Your task to perform on an android device: turn on javascript in the chrome app Image 0: 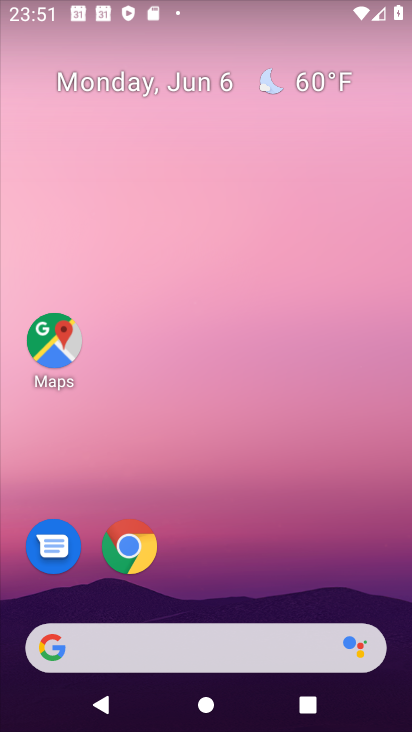
Step 0: drag from (284, 646) to (231, 110)
Your task to perform on an android device: turn on javascript in the chrome app Image 1: 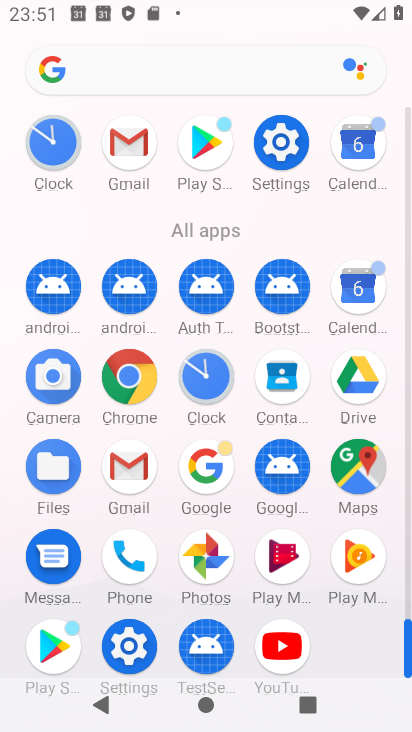
Step 1: click (125, 383)
Your task to perform on an android device: turn on javascript in the chrome app Image 2: 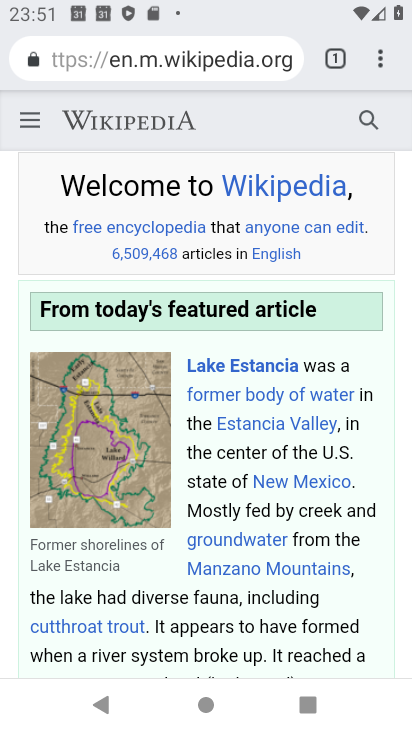
Step 2: click (384, 59)
Your task to perform on an android device: turn on javascript in the chrome app Image 3: 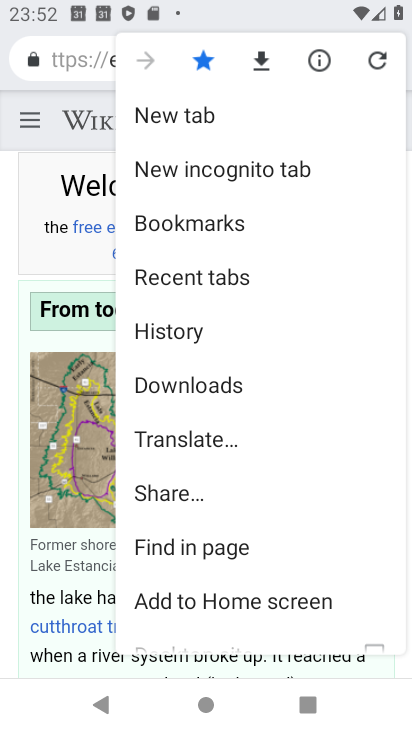
Step 3: drag from (198, 567) to (134, 24)
Your task to perform on an android device: turn on javascript in the chrome app Image 4: 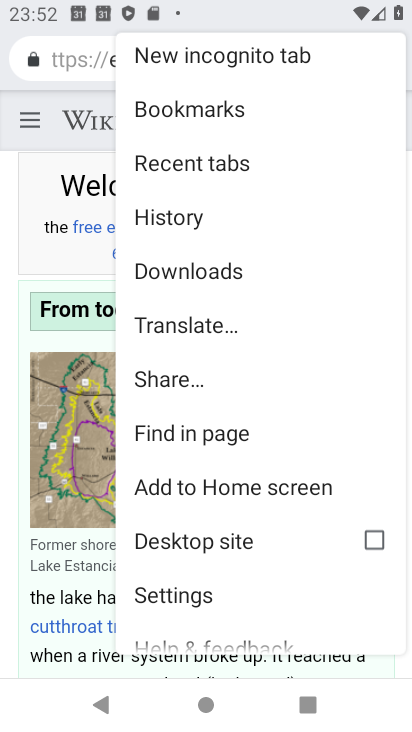
Step 4: click (161, 585)
Your task to perform on an android device: turn on javascript in the chrome app Image 5: 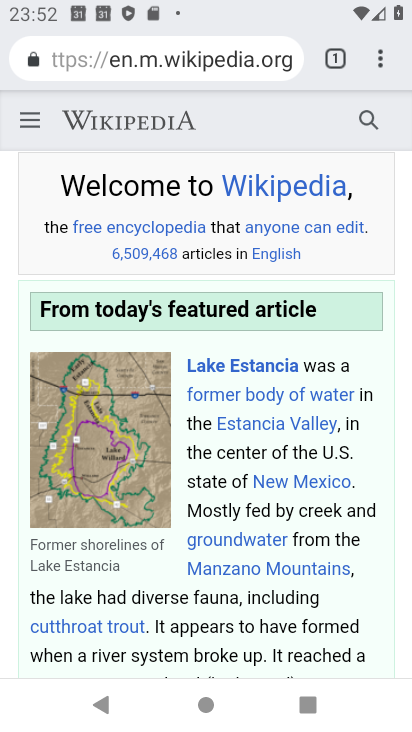
Step 5: click (162, 585)
Your task to perform on an android device: turn on javascript in the chrome app Image 6: 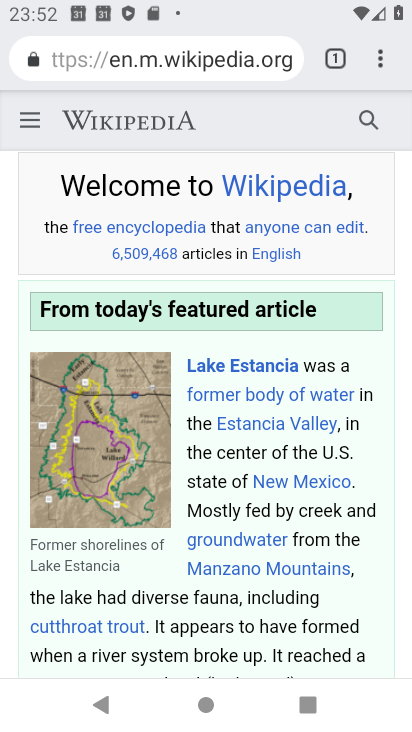
Step 6: click (162, 585)
Your task to perform on an android device: turn on javascript in the chrome app Image 7: 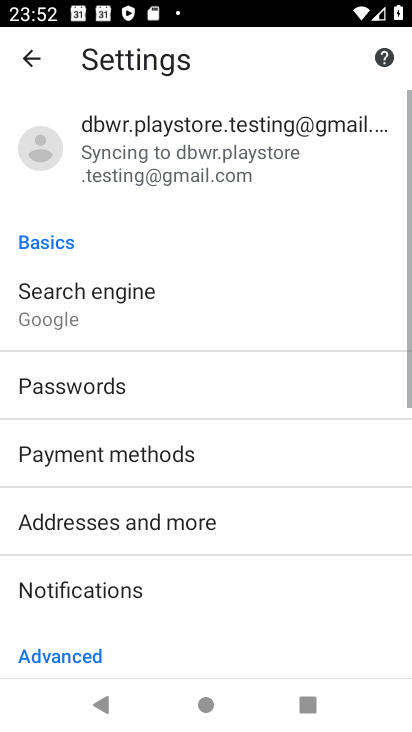
Step 7: drag from (157, 518) to (104, 119)
Your task to perform on an android device: turn on javascript in the chrome app Image 8: 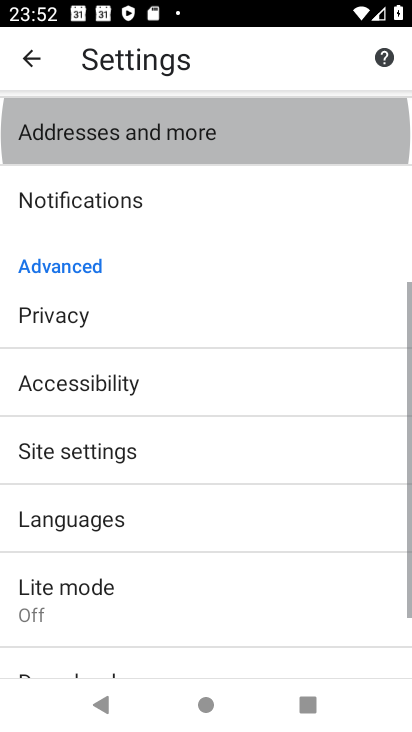
Step 8: drag from (127, 383) to (127, 198)
Your task to perform on an android device: turn on javascript in the chrome app Image 9: 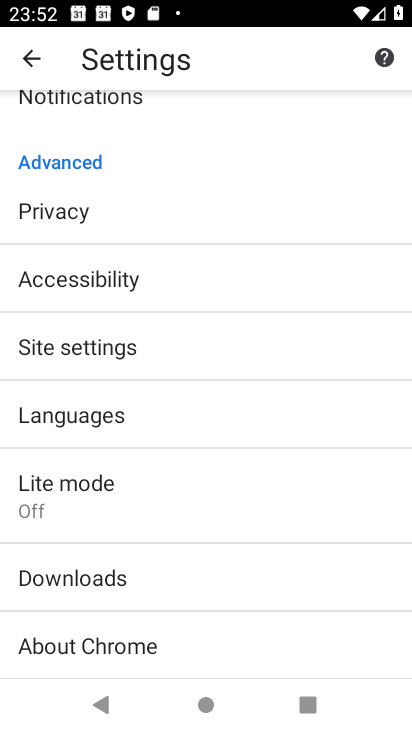
Step 9: drag from (126, 536) to (155, 191)
Your task to perform on an android device: turn on javascript in the chrome app Image 10: 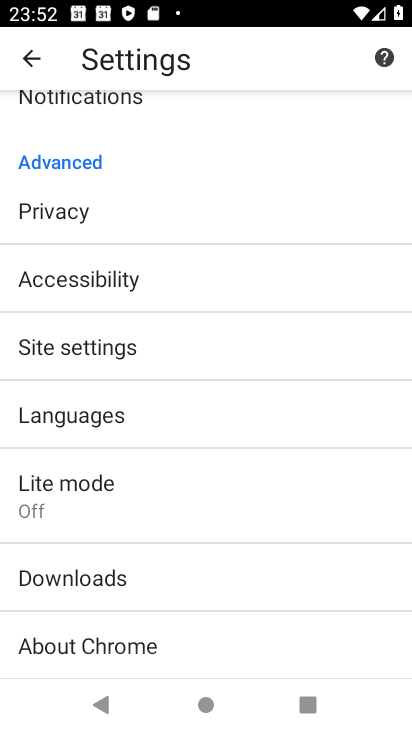
Step 10: drag from (95, 586) to (150, 333)
Your task to perform on an android device: turn on javascript in the chrome app Image 11: 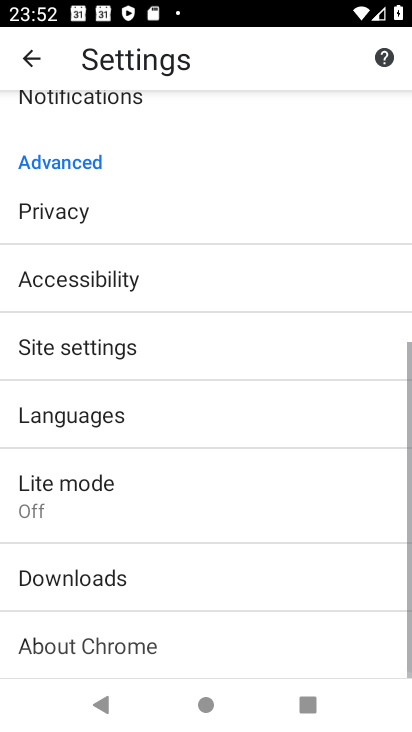
Step 11: drag from (170, 485) to (176, 253)
Your task to perform on an android device: turn on javascript in the chrome app Image 12: 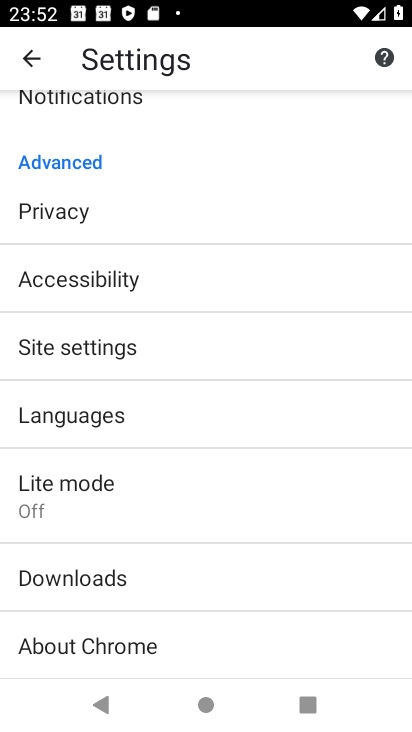
Step 12: click (76, 329)
Your task to perform on an android device: turn on javascript in the chrome app Image 13: 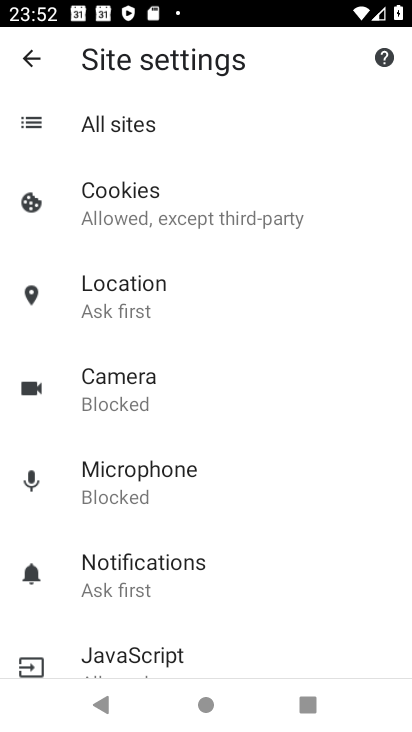
Step 13: drag from (211, 523) to (184, 223)
Your task to perform on an android device: turn on javascript in the chrome app Image 14: 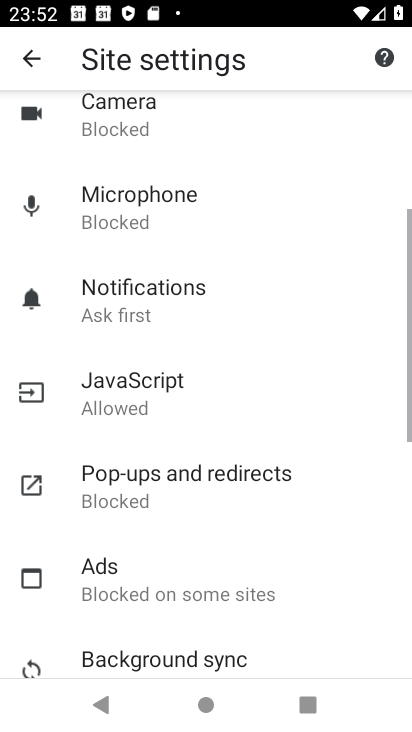
Step 14: click (167, 296)
Your task to perform on an android device: turn on javascript in the chrome app Image 15: 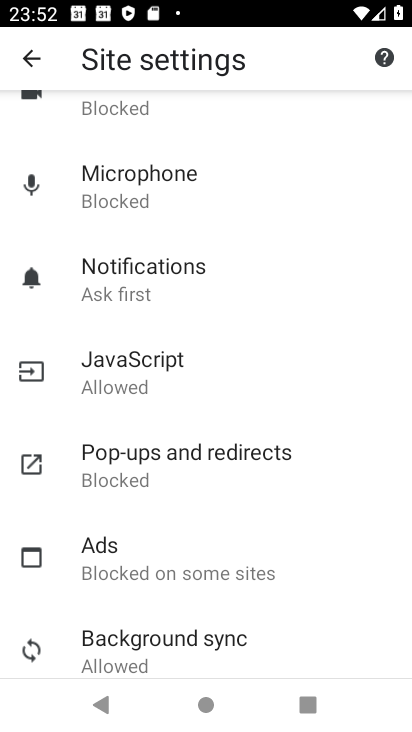
Step 15: click (119, 370)
Your task to perform on an android device: turn on javascript in the chrome app Image 16: 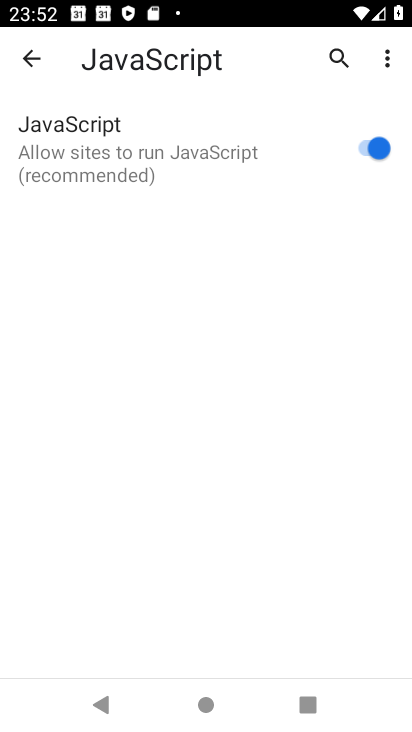
Step 16: task complete